Your task to perform on an android device: Search for 'The Girl on the Train' on Goodreads. Image 0: 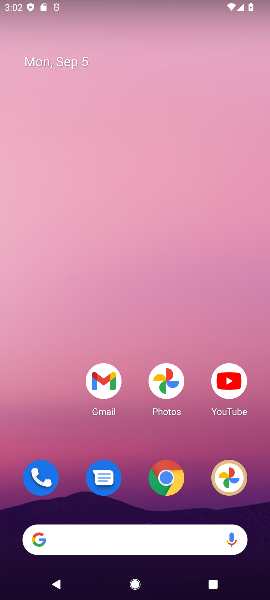
Step 0: drag from (186, 480) to (211, 178)
Your task to perform on an android device: Search for 'The Girl on the Train' on Goodreads. Image 1: 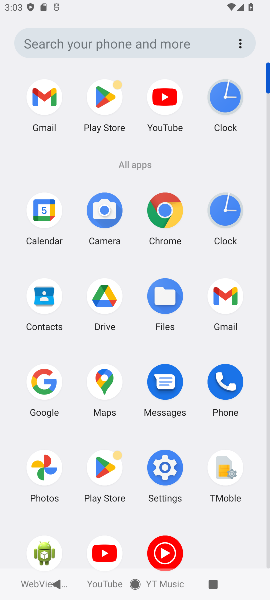
Step 1: click (169, 216)
Your task to perform on an android device: Search for 'The Girl on the Train' on Goodreads. Image 2: 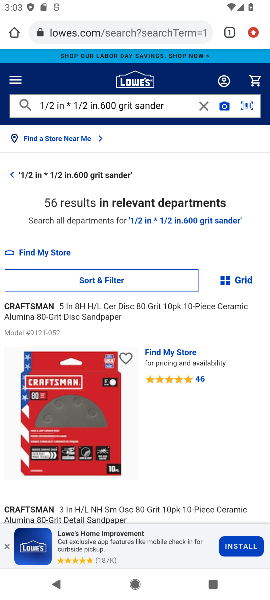
Step 2: click (182, 30)
Your task to perform on an android device: Search for 'The Girl on the Train' on Goodreads. Image 3: 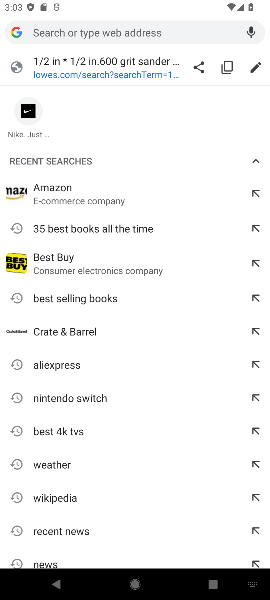
Step 3: type "Goodreads"
Your task to perform on an android device: Search for 'The Girl on the Train' on Goodreads. Image 4: 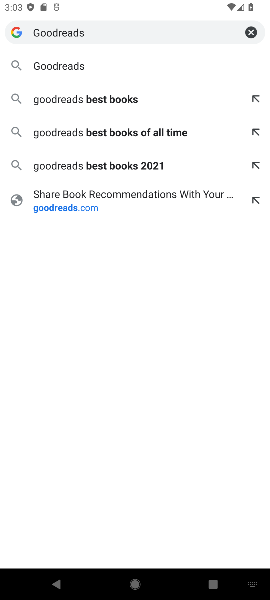
Step 4: click (73, 63)
Your task to perform on an android device: Search for 'The Girl on the Train' on Goodreads. Image 5: 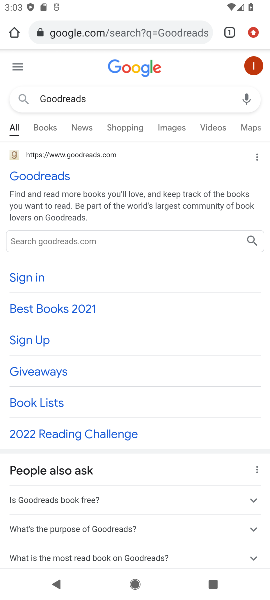
Step 5: click (55, 177)
Your task to perform on an android device: Search for 'The Girl on the Train' on Goodreads. Image 6: 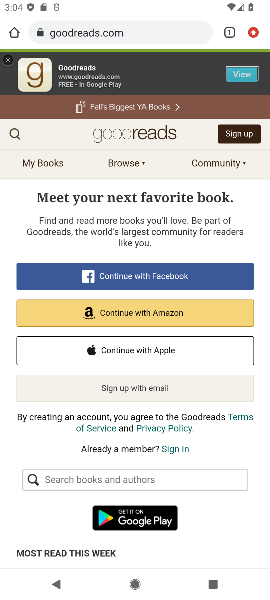
Step 6: click (156, 473)
Your task to perform on an android device: Search for 'The Girl on the Train' on Goodreads. Image 7: 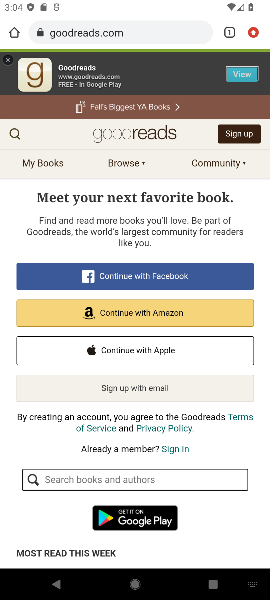
Step 7: type "The Girl on the Train"
Your task to perform on an android device: Search for 'The Girl on the Train' on Goodreads. Image 8: 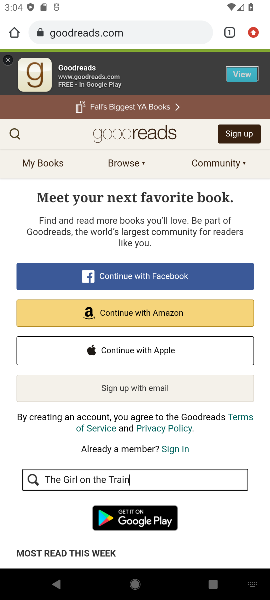
Step 8: click (34, 484)
Your task to perform on an android device: Search for 'The Girl on the Train' on Goodreads. Image 9: 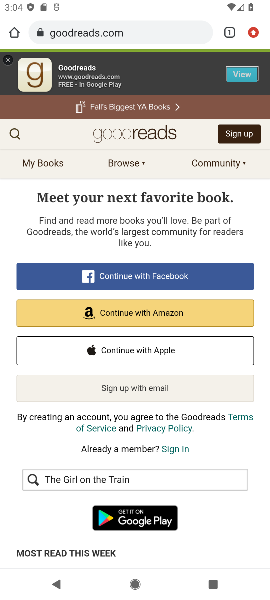
Step 9: click (34, 484)
Your task to perform on an android device: Search for 'The Girl on the Train' on Goodreads. Image 10: 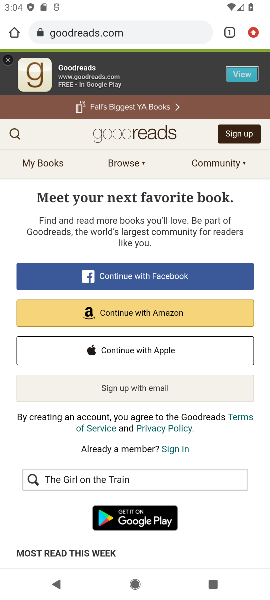
Step 10: click (34, 484)
Your task to perform on an android device: Search for 'The Girl on the Train' on Goodreads. Image 11: 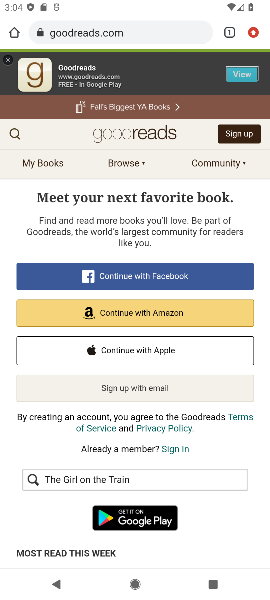
Step 11: click (29, 480)
Your task to perform on an android device: Search for 'The Girl on the Train' on Goodreads. Image 12: 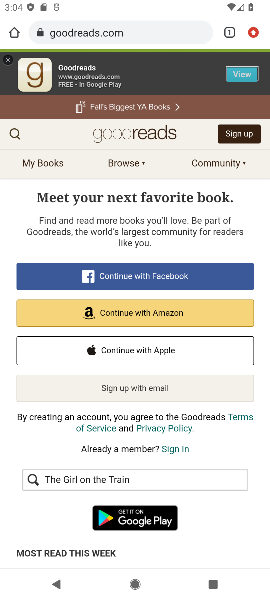
Step 12: click (37, 477)
Your task to perform on an android device: Search for 'The Girl on the Train' on Goodreads. Image 13: 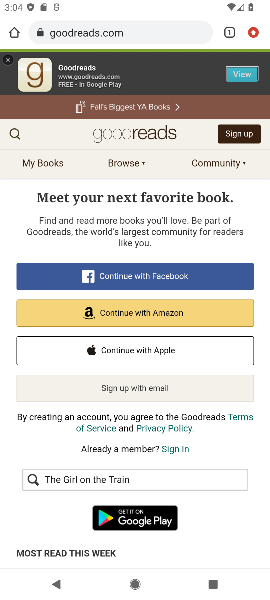
Step 13: click (37, 477)
Your task to perform on an android device: Search for 'The Girl on the Train' on Goodreads. Image 14: 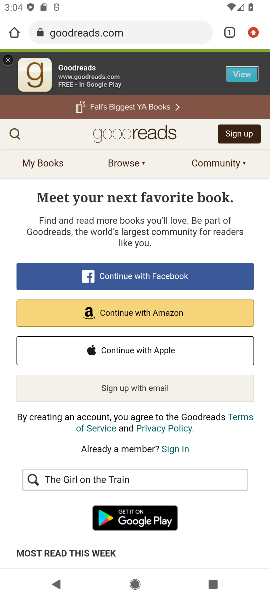
Step 14: click (37, 477)
Your task to perform on an android device: Search for 'The Girl on the Train' on Goodreads. Image 15: 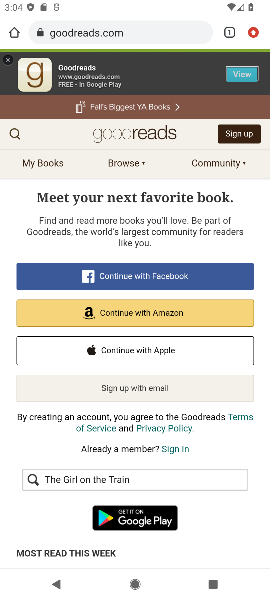
Step 15: click (36, 478)
Your task to perform on an android device: Search for 'The Girl on the Train' on Goodreads. Image 16: 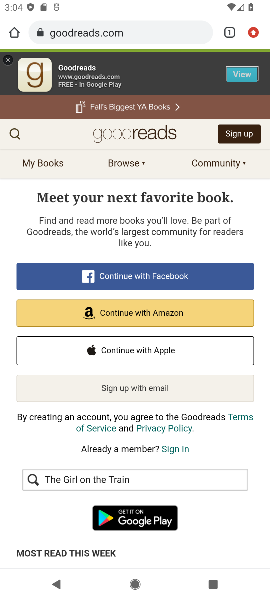
Step 16: click (36, 478)
Your task to perform on an android device: Search for 'The Girl on the Train' on Goodreads. Image 17: 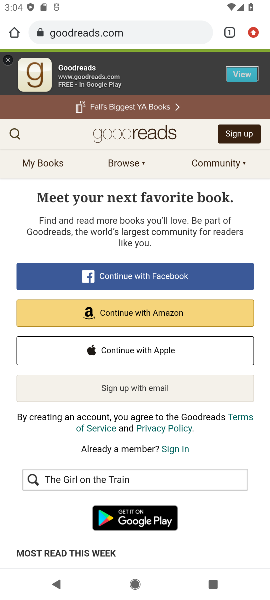
Step 17: click (228, 478)
Your task to perform on an android device: Search for 'The Girl on the Train' on Goodreads. Image 18: 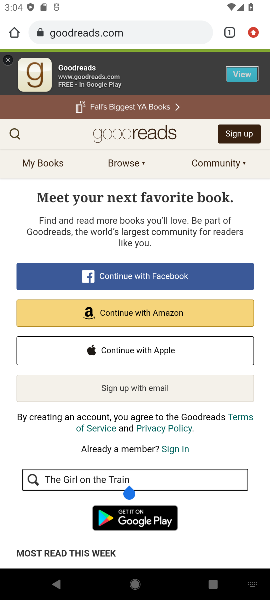
Step 18: click (33, 483)
Your task to perform on an android device: Search for 'The Girl on the Train' on Goodreads. Image 19: 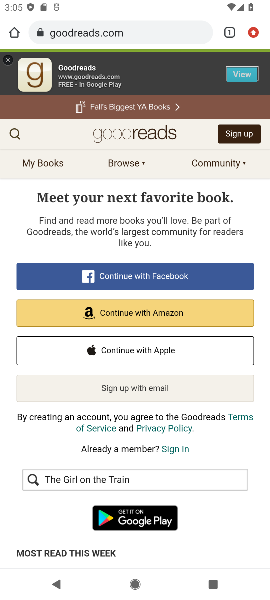
Step 19: task complete